Your task to perform on an android device: Open Google Chrome and click the shortcut for Amazon.com Image 0: 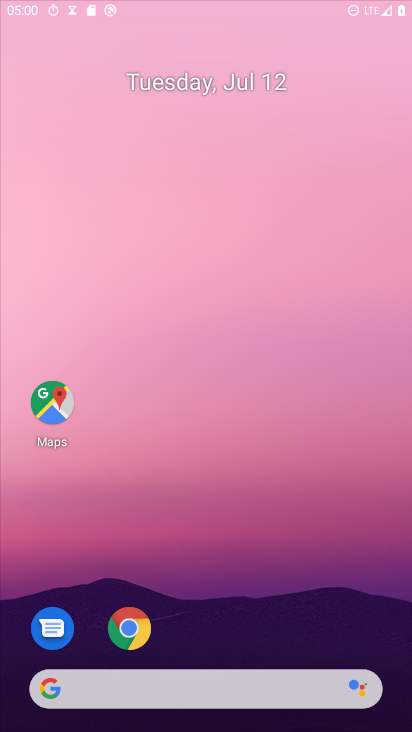
Step 0: drag from (336, 661) to (334, 40)
Your task to perform on an android device: Open Google Chrome and click the shortcut for Amazon.com Image 1: 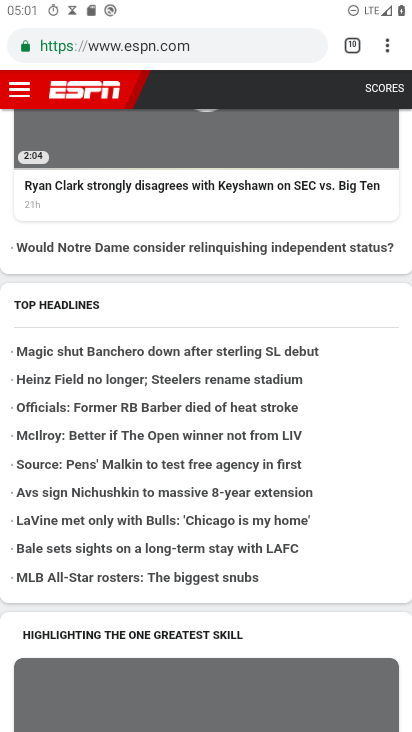
Step 1: drag from (392, 42) to (238, 100)
Your task to perform on an android device: Open Google Chrome and click the shortcut for Amazon.com Image 2: 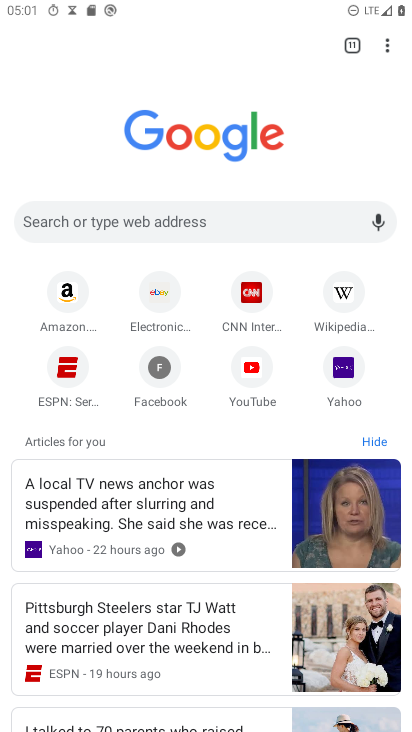
Step 2: click (62, 298)
Your task to perform on an android device: Open Google Chrome and click the shortcut for Amazon.com Image 3: 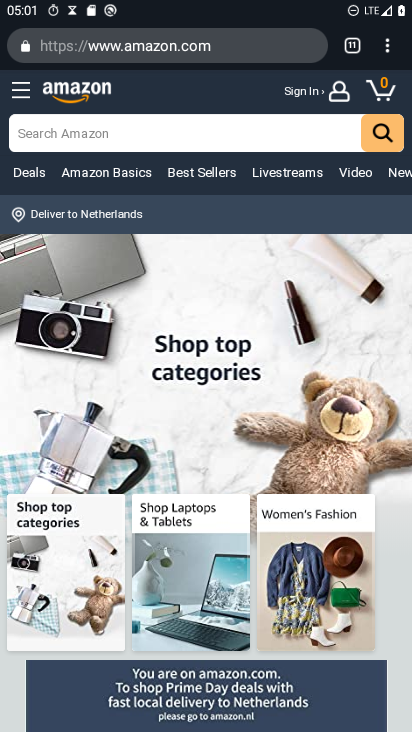
Step 3: drag from (392, 40) to (260, 468)
Your task to perform on an android device: Open Google Chrome and click the shortcut for Amazon.com Image 4: 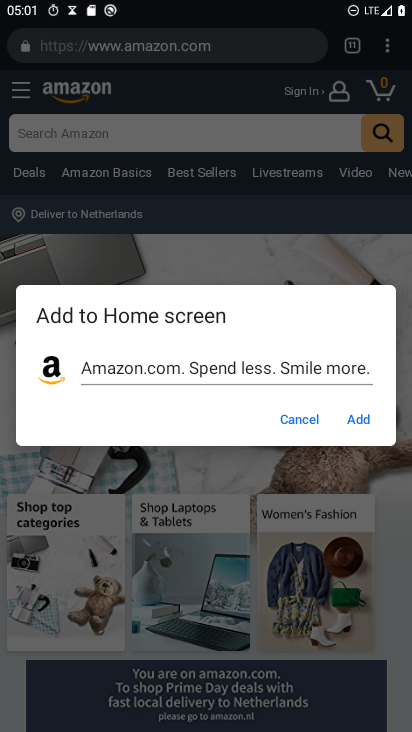
Step 4: click (347, 415)
Your task to perform on an android device: Open Google Chrome and click the shortcut for Amazon.com Image 5: 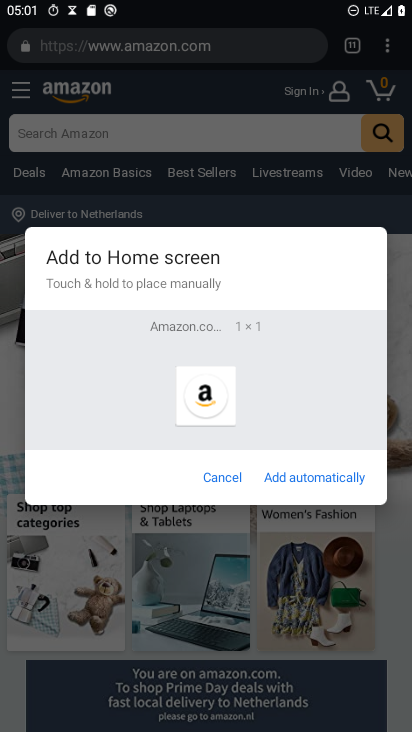
Step 5: click (317, 477)
Your task to perform on an android device: Open Google Chrome and click the shortcut for Amazon.com Image 6: 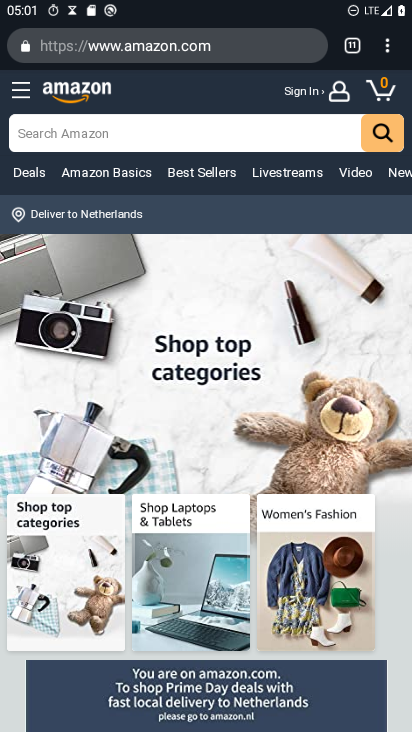
Step 6: task complete